Your task to perform on an android device: What is the news today? Image 0: 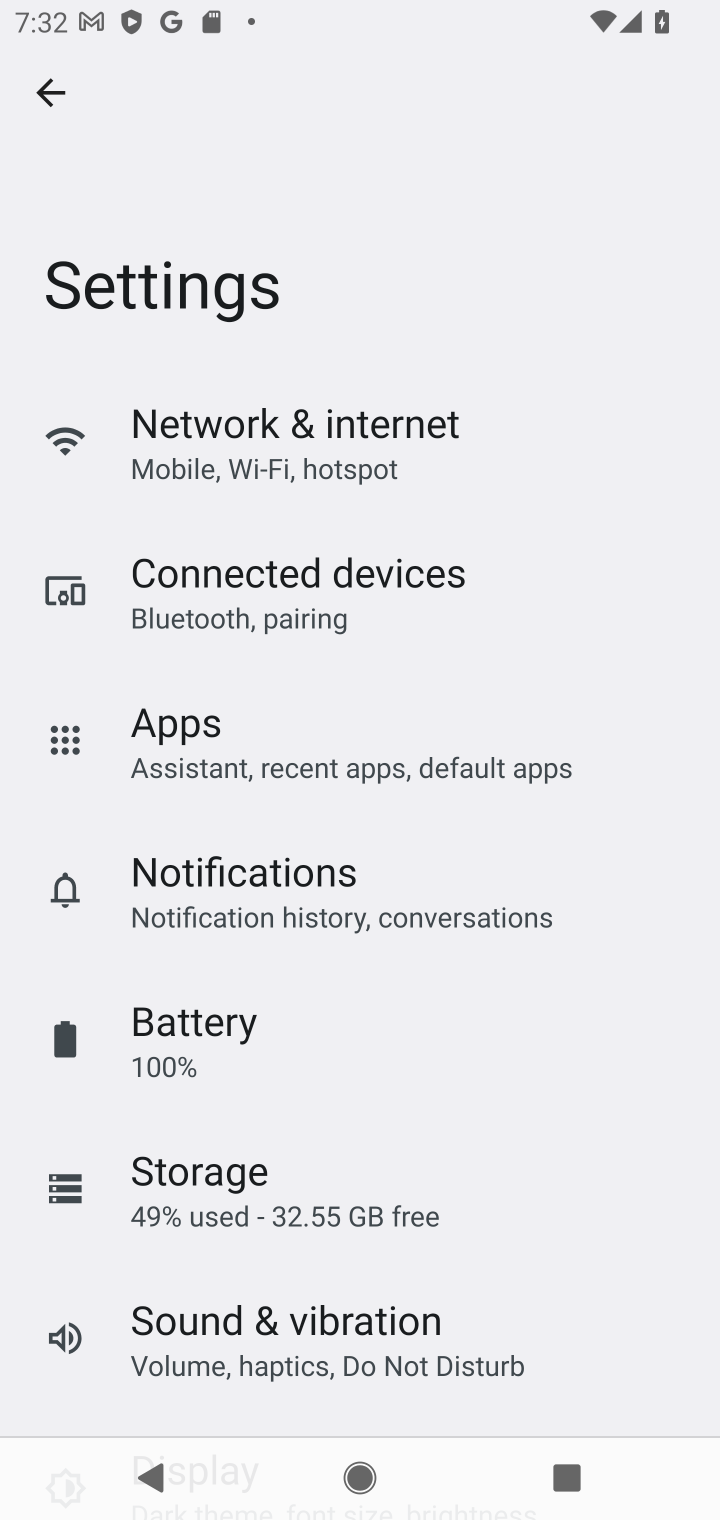
Step 0: press home button
Your task to perform on an android device: What is the news today? Image 1: 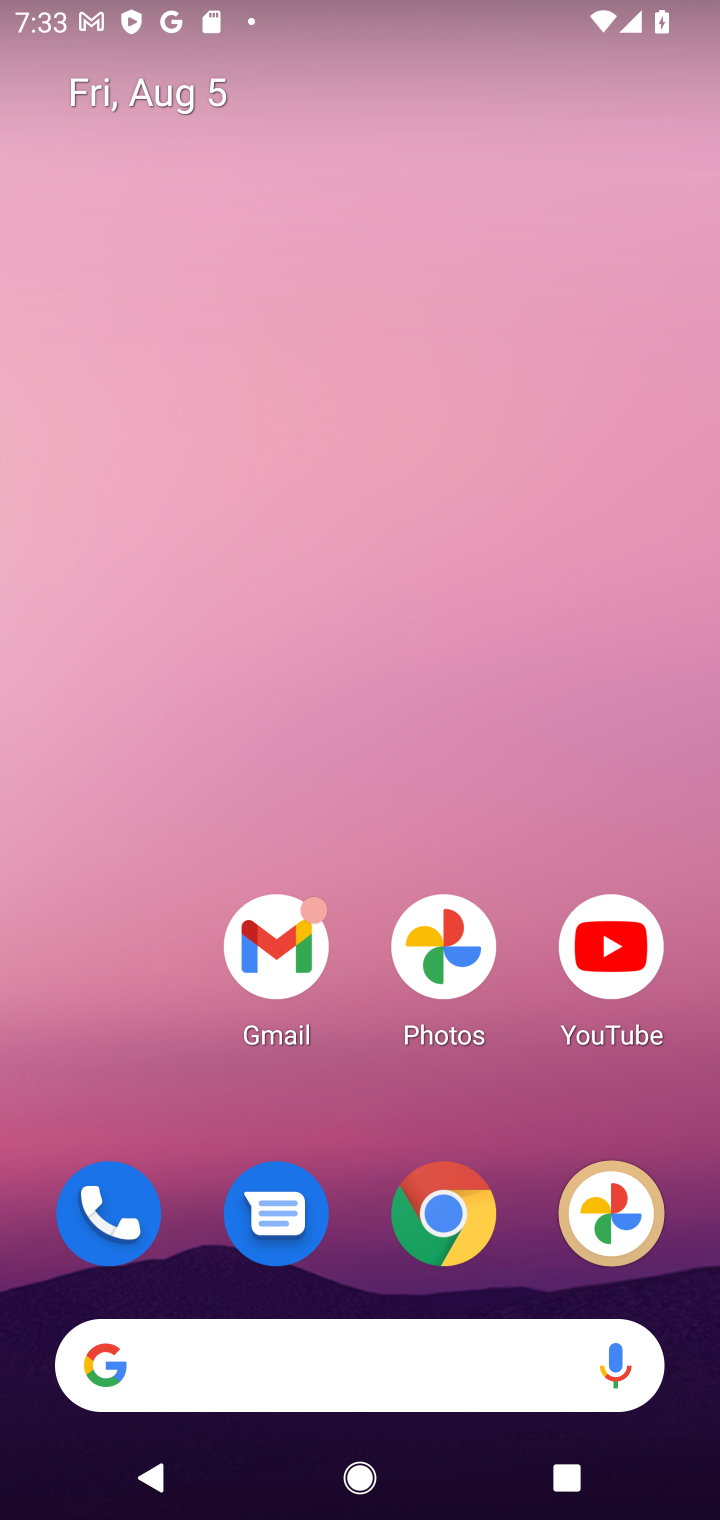
Step 1: drag from (324, 990) to (445, 245)
Your task to perform on an android device: What is the news today? Image 2: 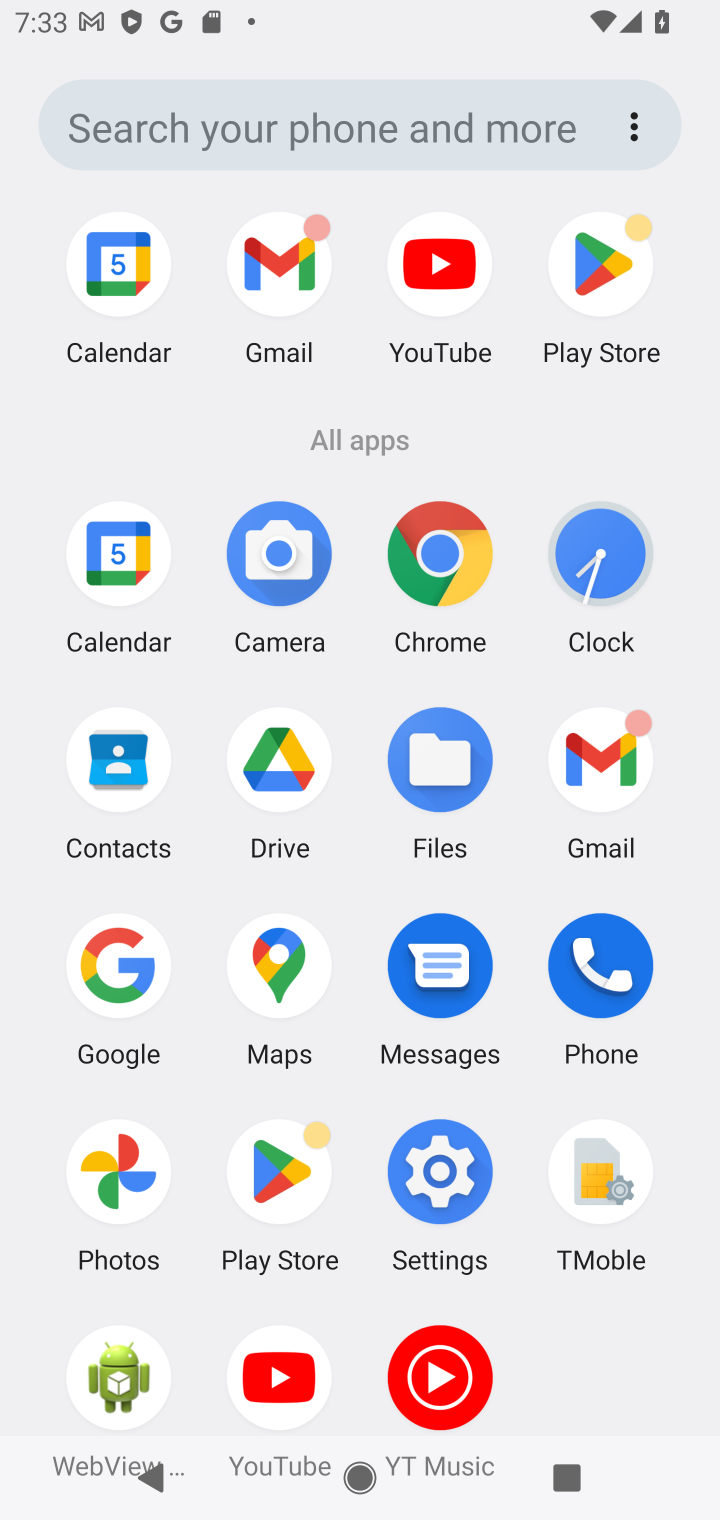
Step 2: click (441, 550)
Your task to perform on an android device: What is the news today? Image 3: 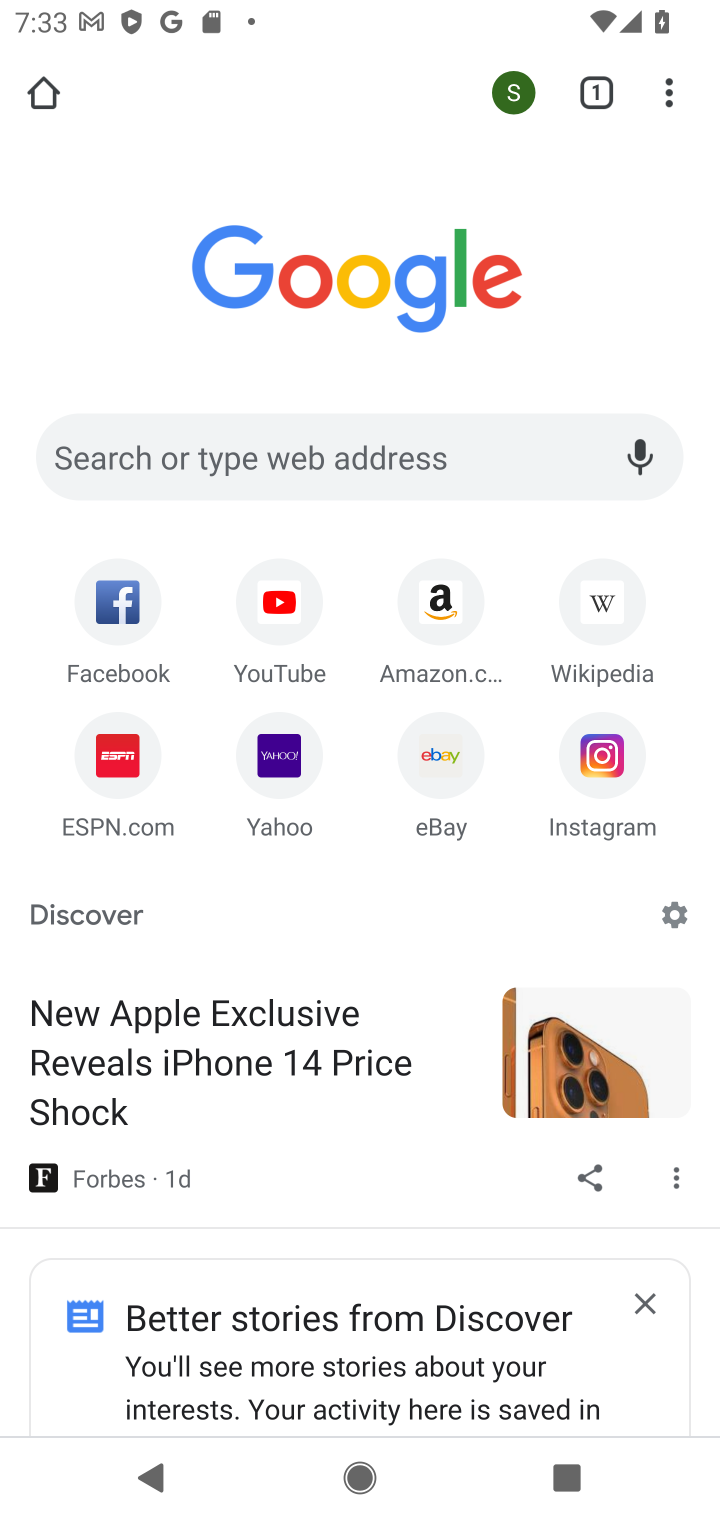
Step 3: click (442, 462)
Your task to perform on an android device: What is the news today? Image 4: 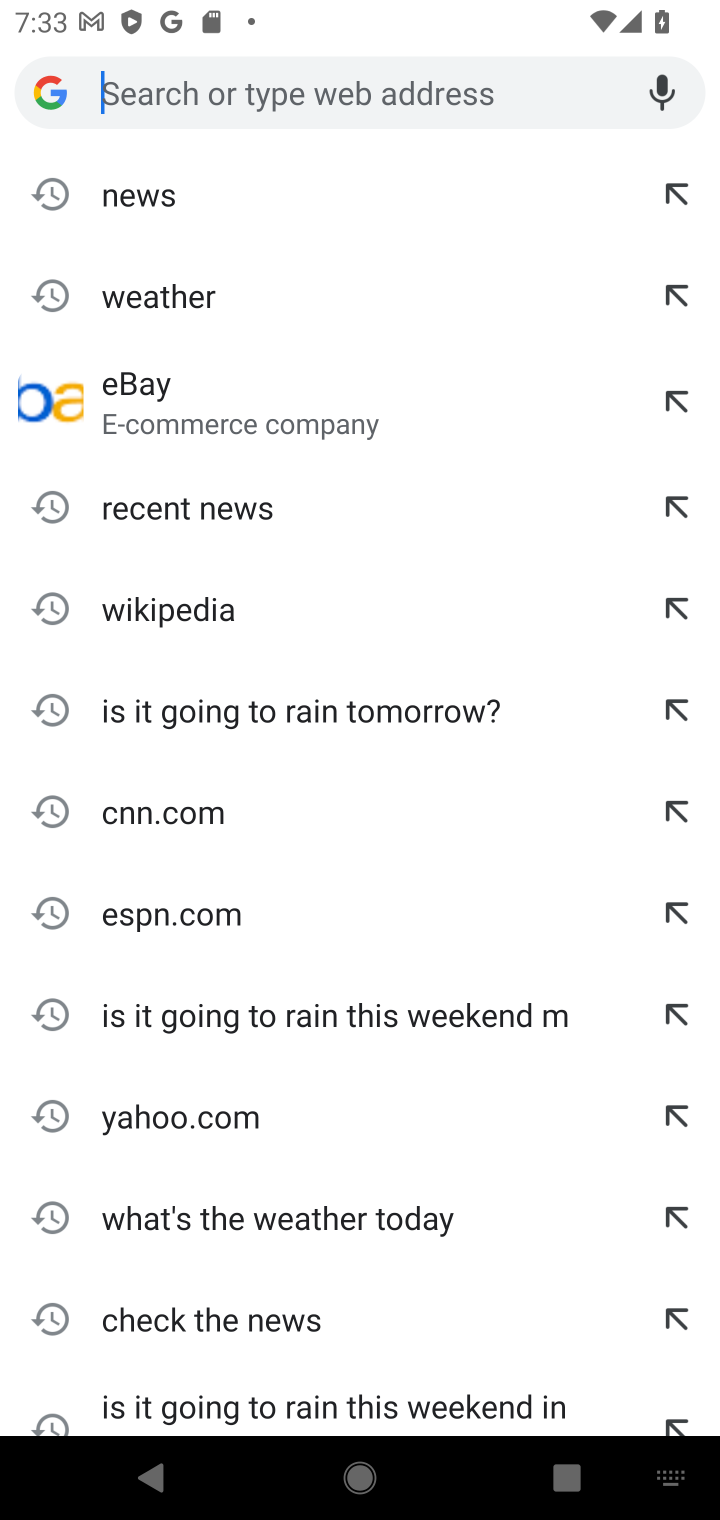
Step 4: type "What is the news today? "
Your task to perform on an android device: What is the news today? Image 5: 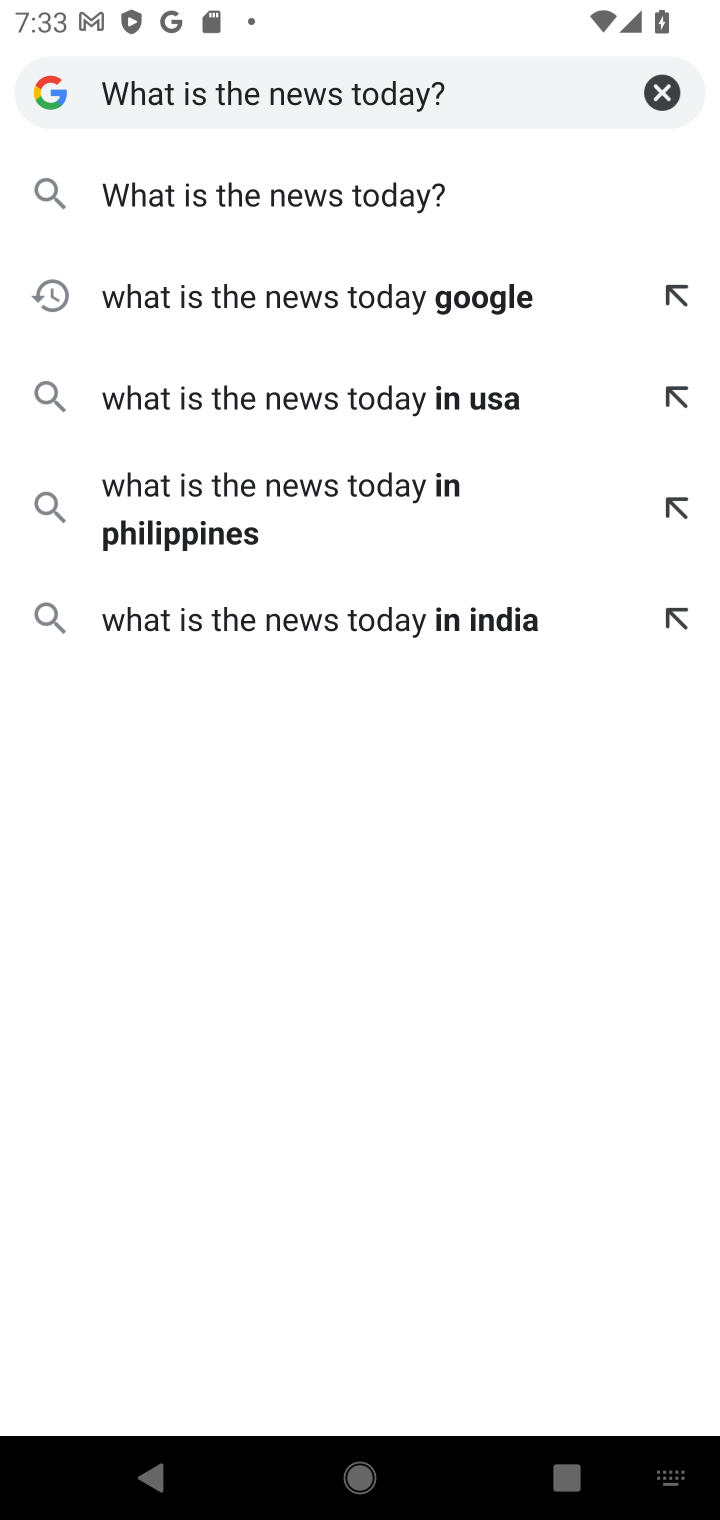
Step 5: click (455, 190)
Your task to perform on an android device: What is the news today? Image 6: 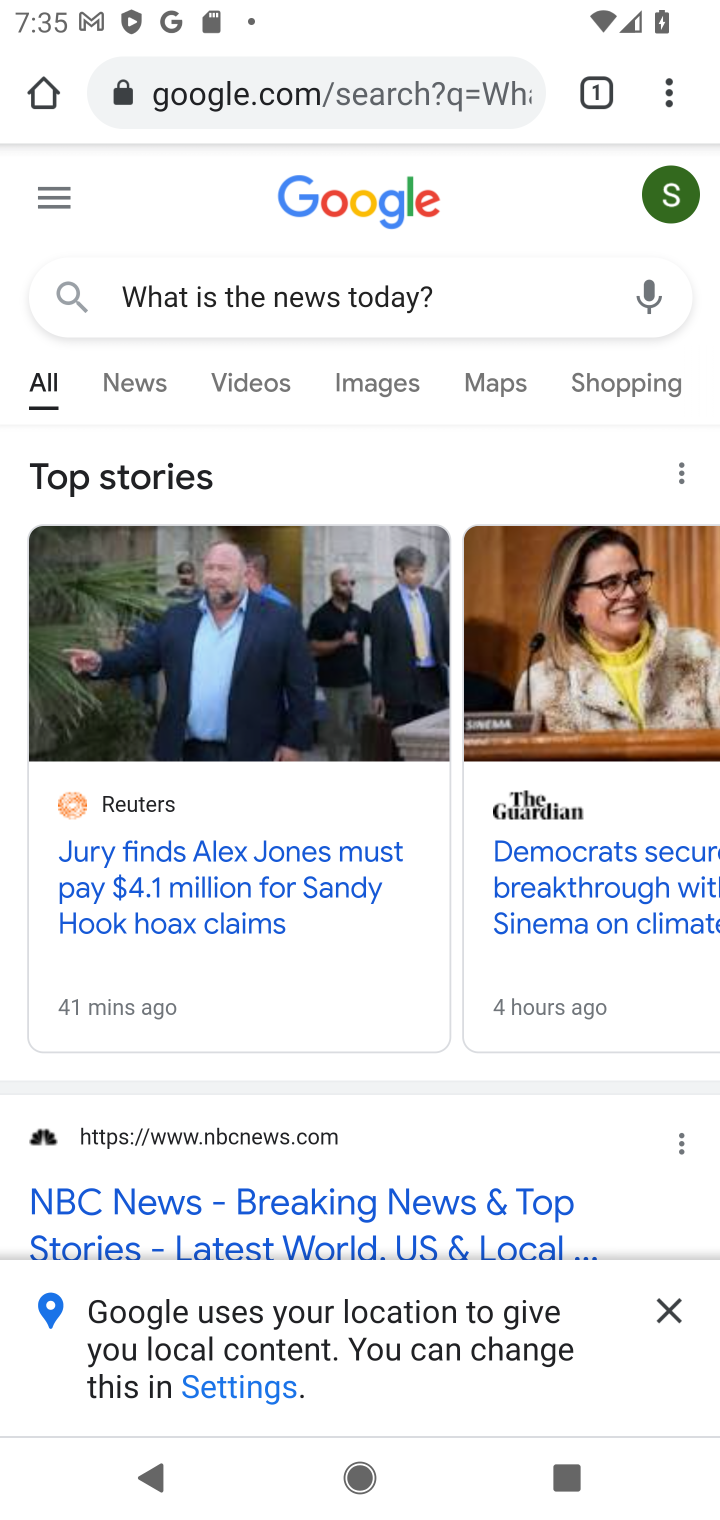
Step 6: task complete